Your task to perform on an android device: Go to notification settings Image 0: 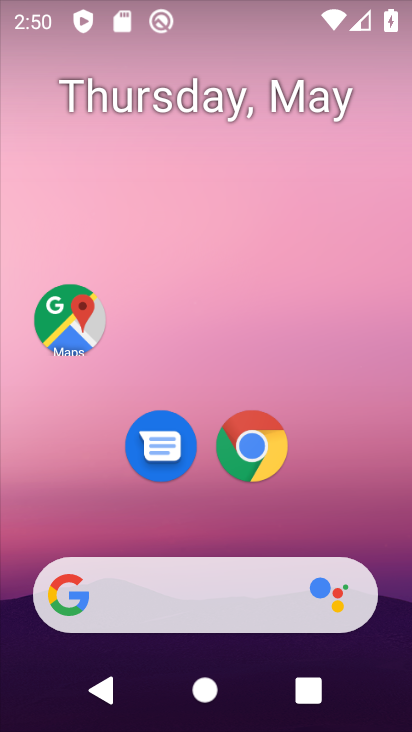
Step 0: drag from (349, 543) to (388, 33)
Your task to perform on an android device: Go to notification settings Image 1: 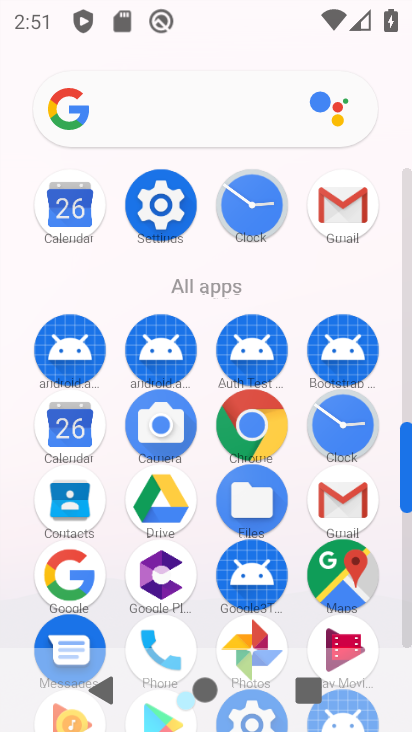
Step 1: click (154, 208)
Your task to perform on an android device: Go to notification settings Image 2: 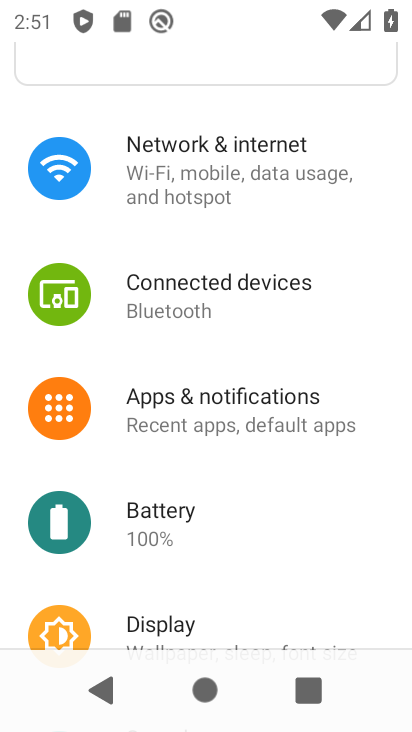
Step 2: click (184, 410)
Your task to perform on an android device: Go to notification settings Image 3: 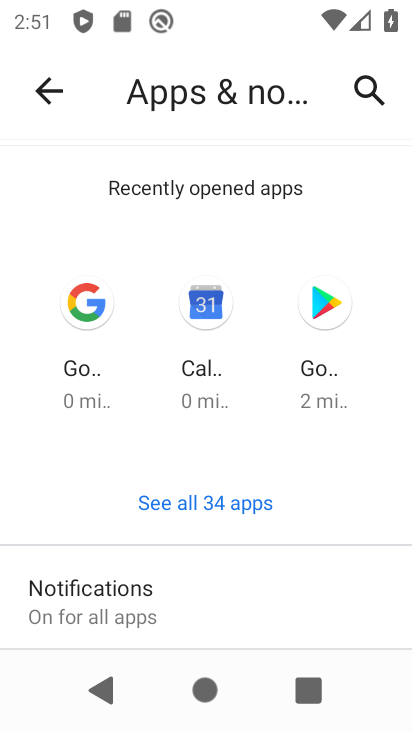
Step 3: task complete